Your task to perform on an android device: Go to network settings Image 0: 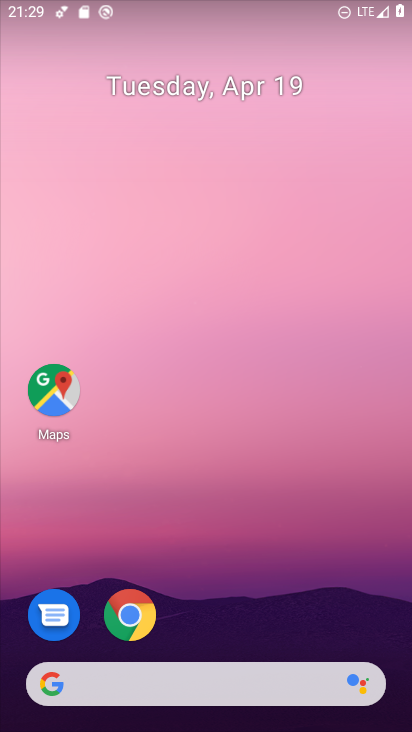
Step 0: drag from (245, 22) to (241, 605)
Your task to perform on an android device: Go to network settings Image 1: 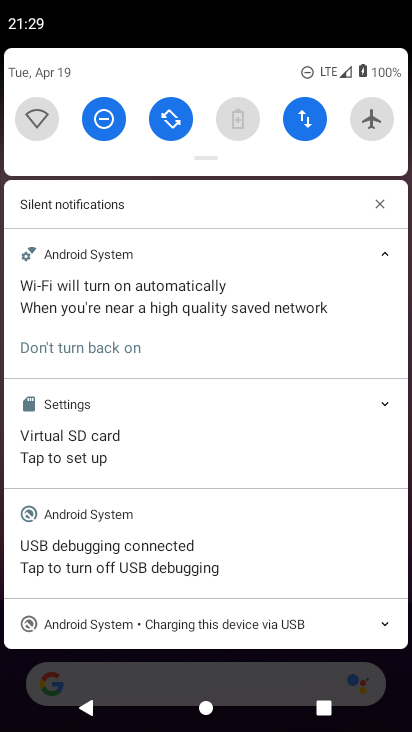
Step 1: drag from (216, 77) to (161, 598)
Your task to perform on an android device: Go to network settings Image 2: 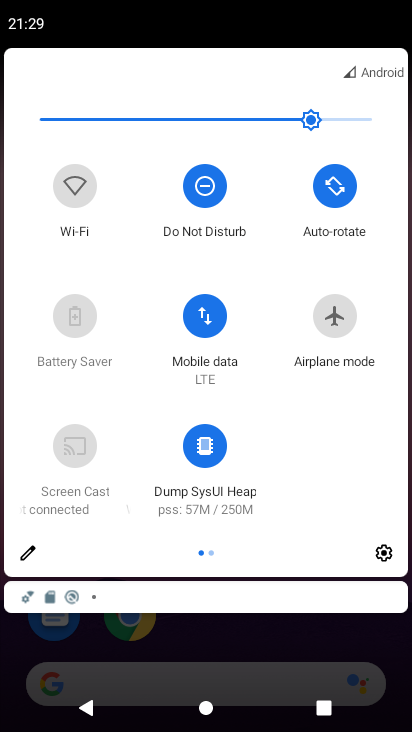
Step 2: click (383, 552)
Your task to perform on an android device: Go to network settings Image 3: 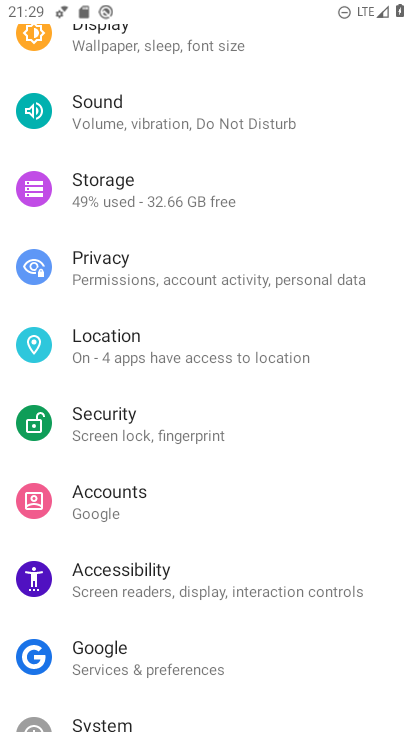
Step 3: drag from (178, 83) to (199, 588)
Your task to perform on an android device: Go to network settings Image 4: 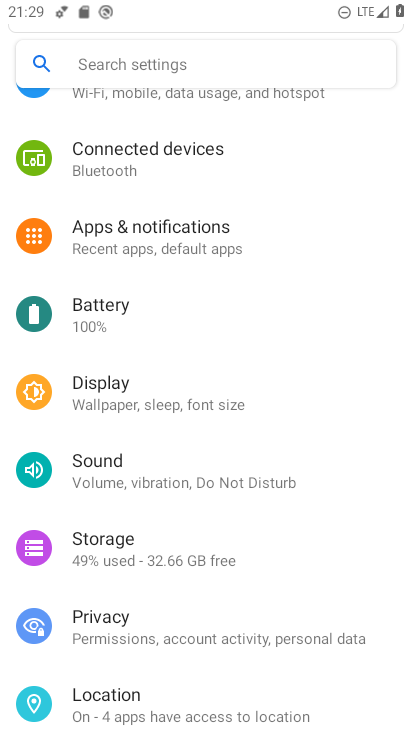
Step 4: drag from (141, 110) to (175, 635)
Your task to perform on an android device: Go to network settings Image 5: 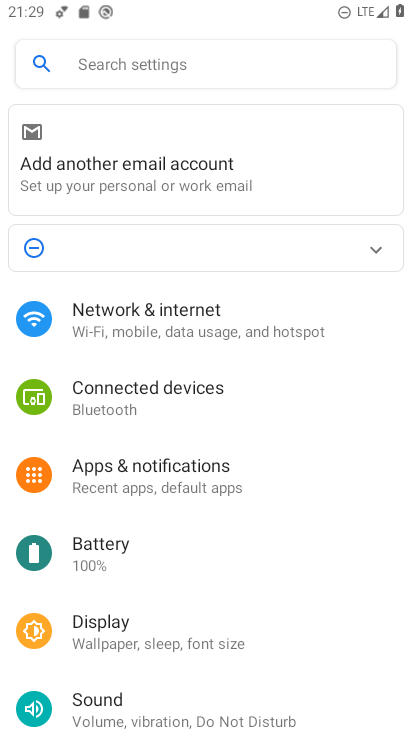
Step 5: click (205, 335)
Your task to perform on an android device: Go to network settings Image 6: 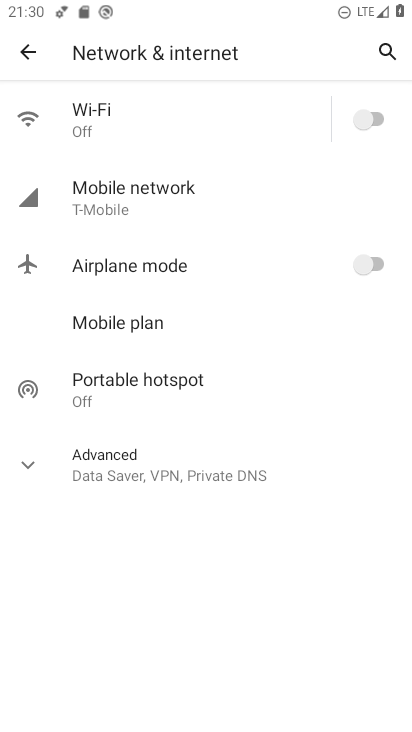
Step 6: click (139, 204)
Your task to perform on an android device: Go to network settings Image 7: 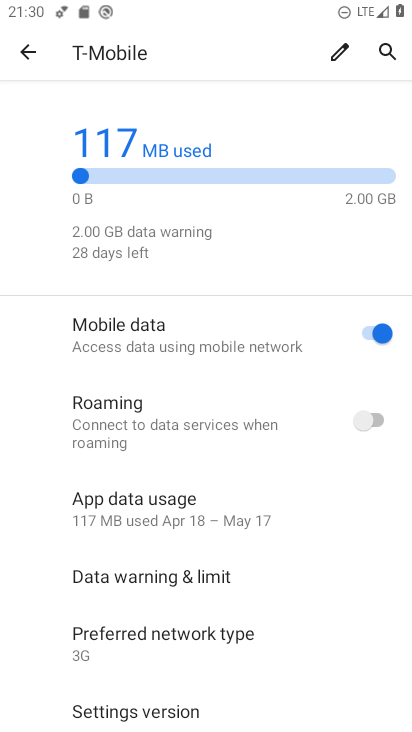
Step 7: task complete